Your task to perform on an android device: open chrome and create a bookmark for the current page Image 0: 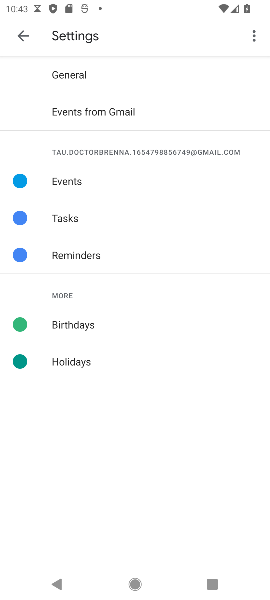
Step 0: press home button
Your task to perform on an android device: open chrome and create a bookmark for the current page Image 1: 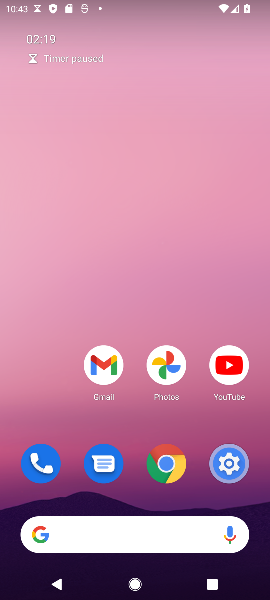
Step 1: click (158, 463)
Your task to perform on an android device: open chrome and create a bookmark for the current page Image 2: 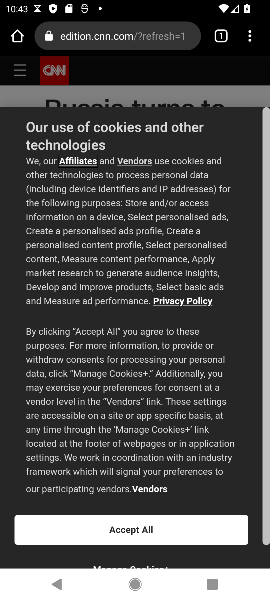
Step 2: click (250, 35)
Your task to perform on an android device: open chrome and create a bookmark for the current page Image 3: 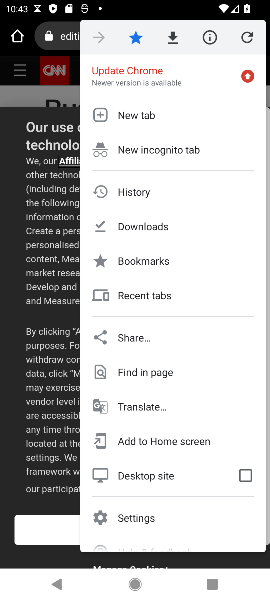
Step 3: task complete